Your task to perform on an android device: Search for vegetarian restaurants on Maps Image 0: 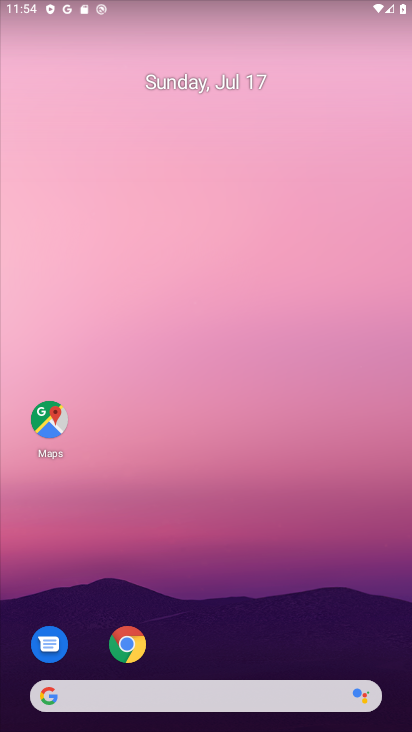
Step 0: drag from (231, 636) to (214, 244)
Your task to perform on an android device: Search for vegetarian restaurants on Maps Image 1: 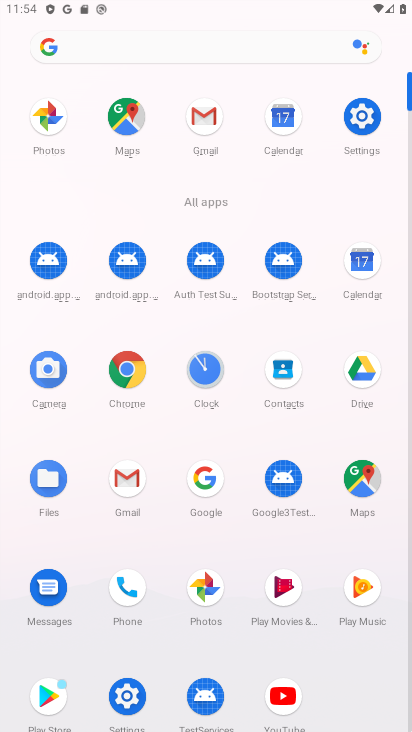
Step 1: click (132, 144)
Your task to perform on an android device: Search for vegetarian restaurants on Maps Image 2: 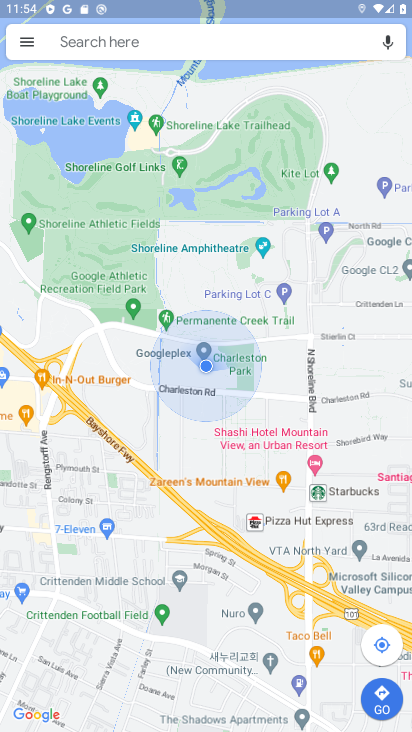
Step 2: click (140, 46)
Your task to perform on an android device: Search for vegetarian restaurants on Maps Image 3: 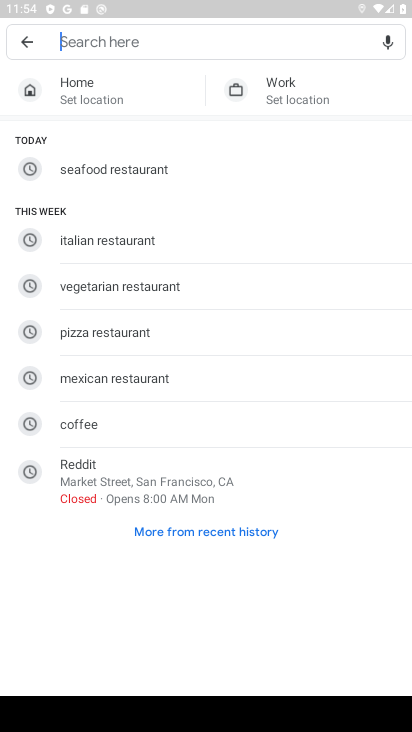
Step 3: click (155, 272)
Your task to perform on an android device: Search for vegetarian restaurants on Maps Image 4: 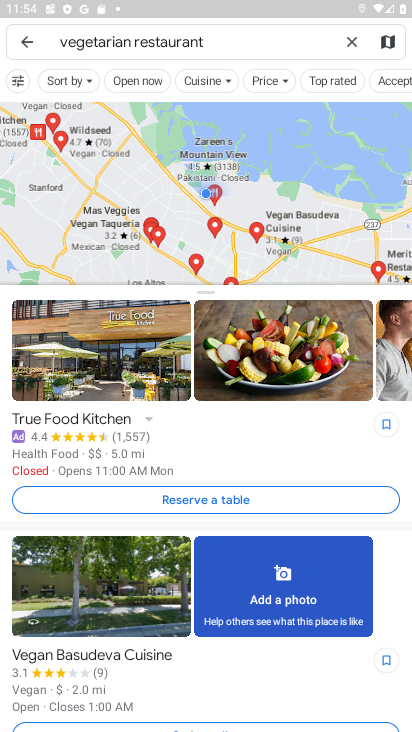
Step 4: task complete